Your task to perform on an android device: change the upload size in google photos Image 0: 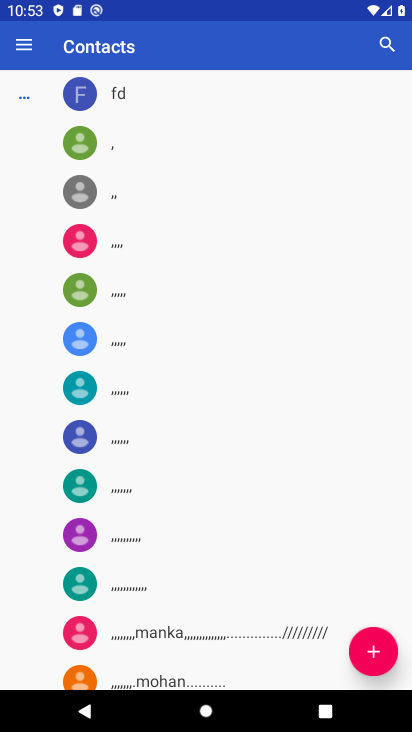
Step 0: press home button
Your task to perform on an android device: change the upload size in google photos Image 1: 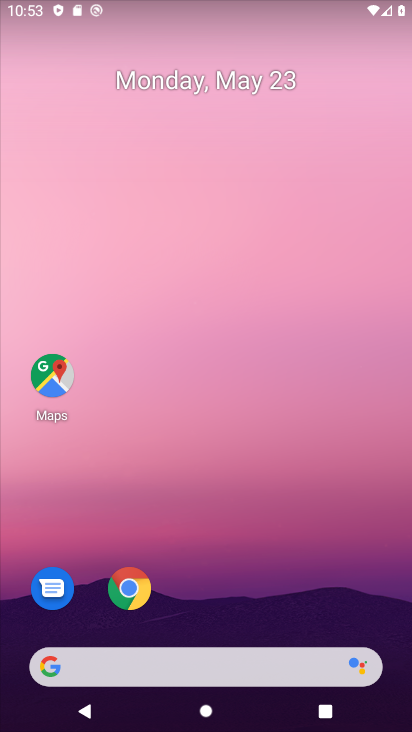
Step 1: drag from (128, 644) to (219, 49)
Your task to perform on an android device: change the upload size in google photos Image 2: 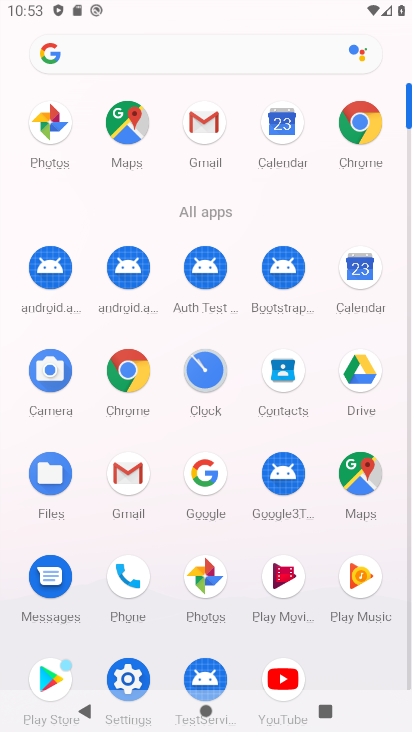
Step 2: click (204, 573)
Your task to perform on an android device: change the upload size in google photos Image 3: 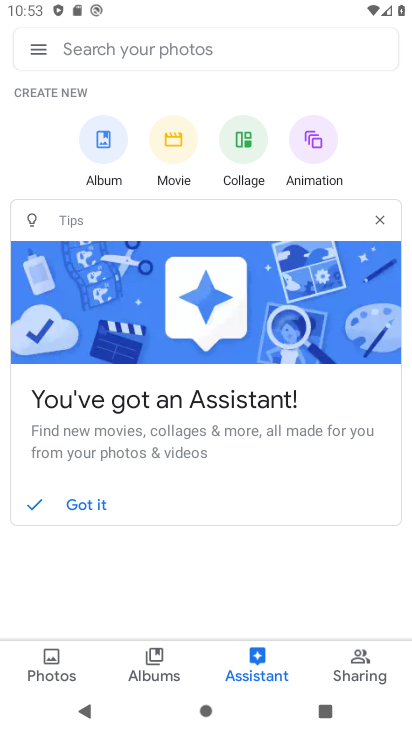
Step 3: click (48, 51)
Your task to perform on an android device: change the upload size in google photos Image 4: 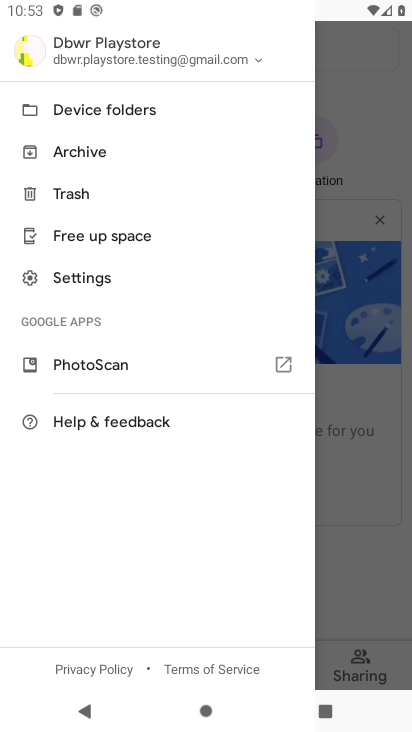
Step 4: click (120, 293)
Your task to perform on an android device: change the upload size in google photos Image 5: 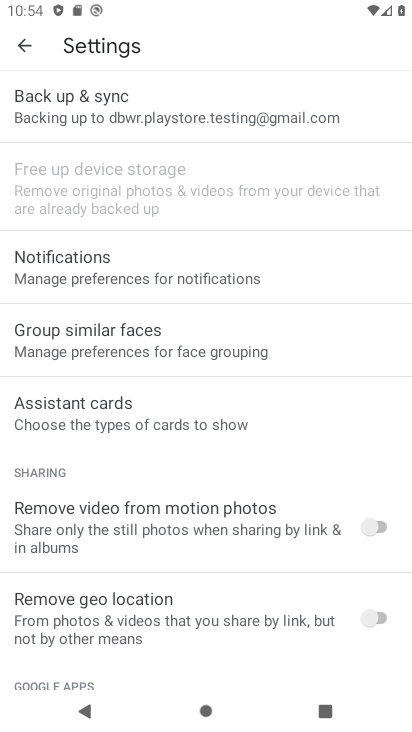
Step 5: click (158, 119)
Your task to perform on an android device: change the upload size in google photos Image 6: 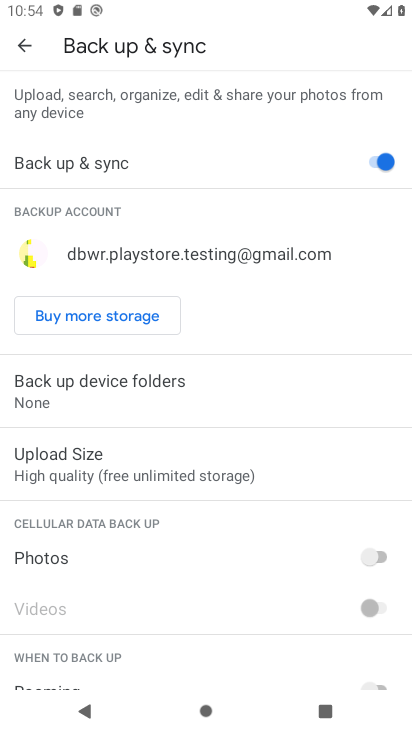
Step 6: click (167, 488)
Your task to perform on an android device: change the upload size in google photos Image 7: 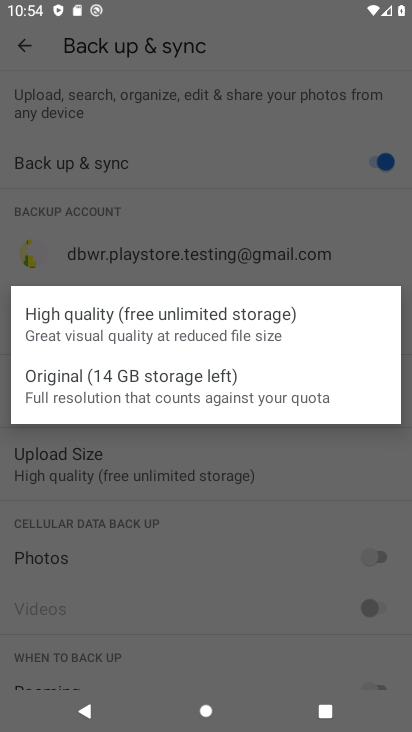
Step 7: click (148, 387)
Your task to perform on an android device: change the upload size in google photos Image 8: 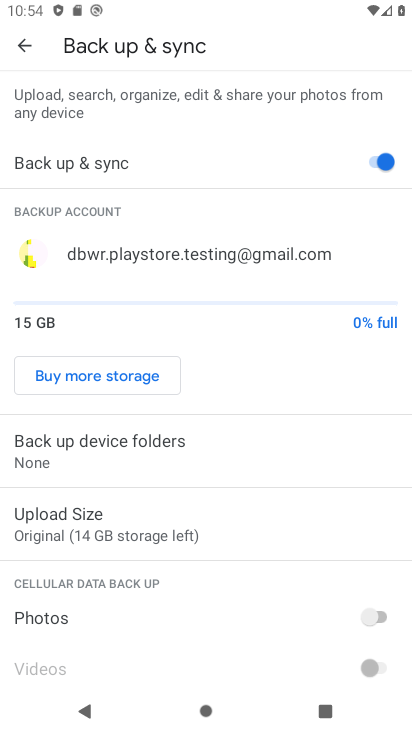
Step 8: task complete